Your task to perform on an android device: What's the weather going to be tomorrow? Image 0: 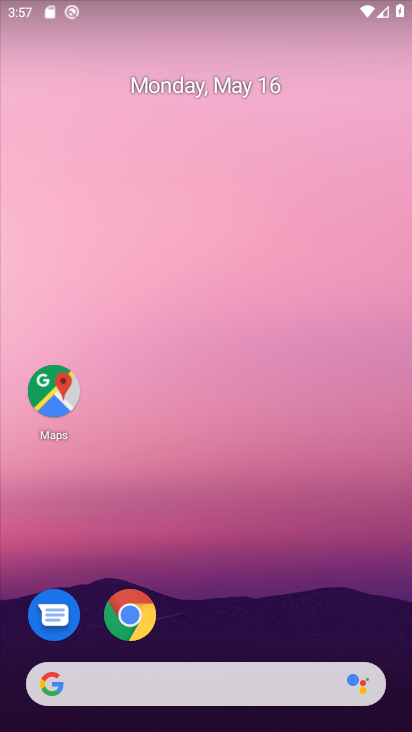
Step 0: drag from (199, 608) to (252, 214)
Your task to perform on an android device: What's the weather going to be tomorrow? Image 1: 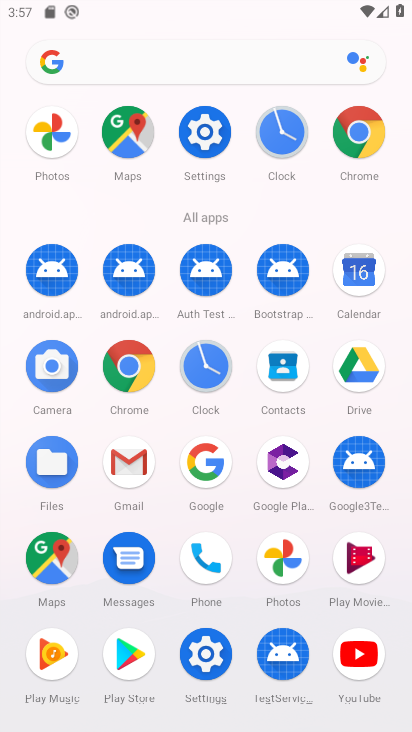
Step 1: click (208, 492)
Your task to perform on an android device: What's the weather going to be tomorrow? Image 2: 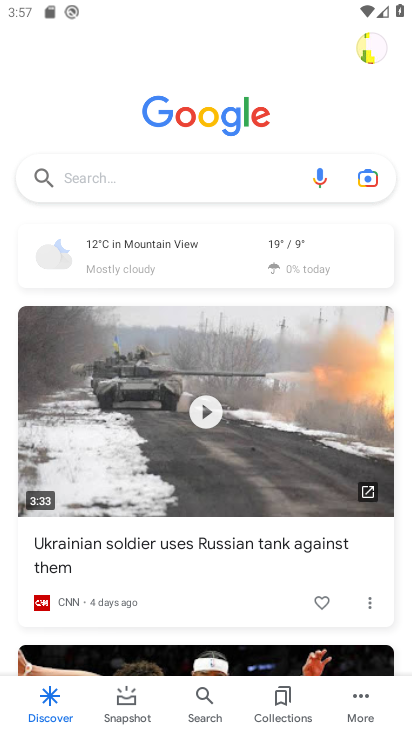
Step 2: click (157, 188)
Your task to perform on an android device: What's the weather going to be tomorrow? Image 3: 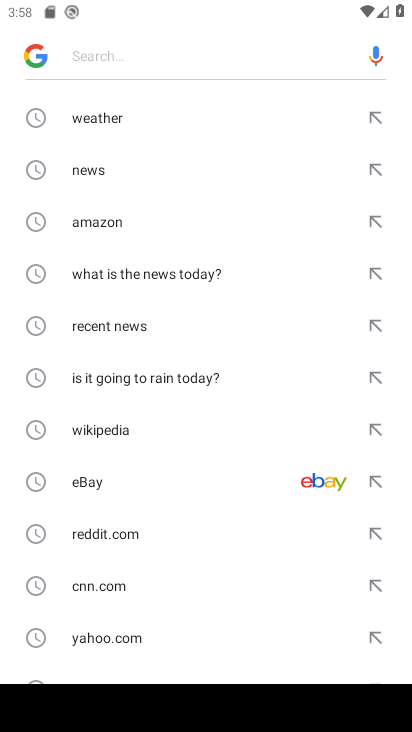
Step 3: click (98, 131)
Your task to perform on an android device: What's the weather going to be tomorrow? Image 4: 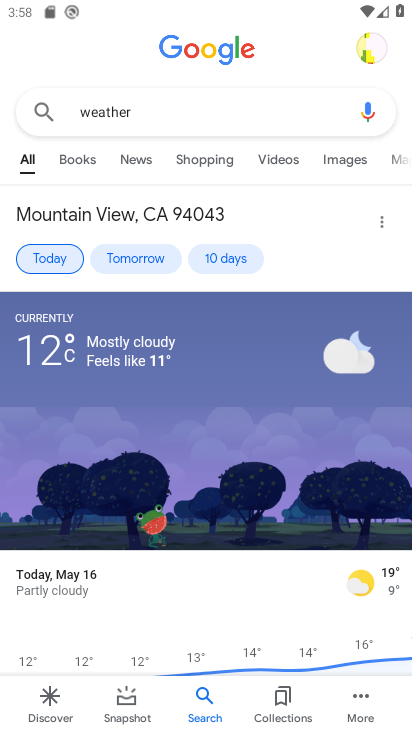
Step 4: task complete